Your task to perform on an android device: open device folders in google photos Image 0: 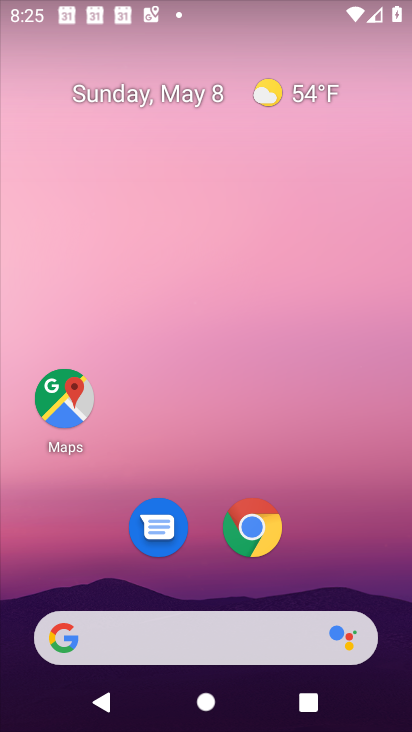
Step 0: drag from (329, 588) to (311, 28)
Your task to perform on an android device: open device folders in google photos Image 1: 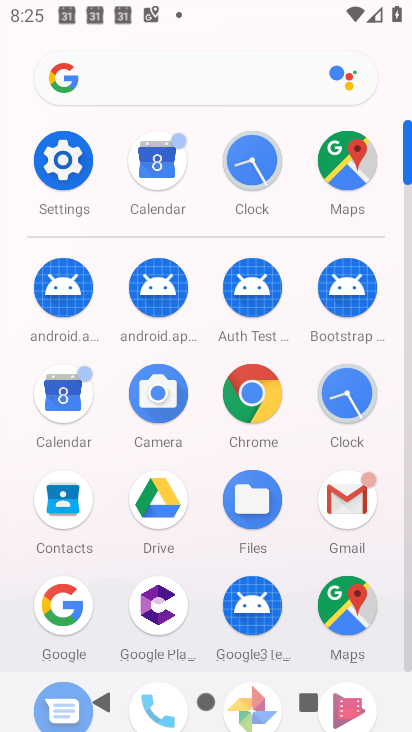
Step 1: drag from (295, 647) to (246, 405)
Your task to perform on an android device: open device folders in google photos Image 2: 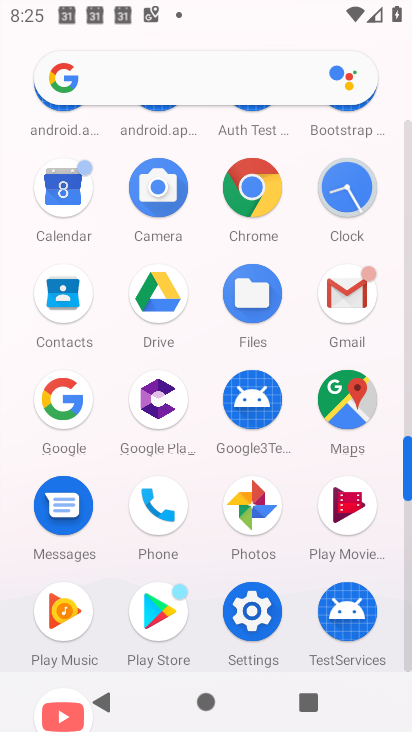
Step 2: click (256, 512)
Your task to perform on an android device: open device folders in google photos Image 3: 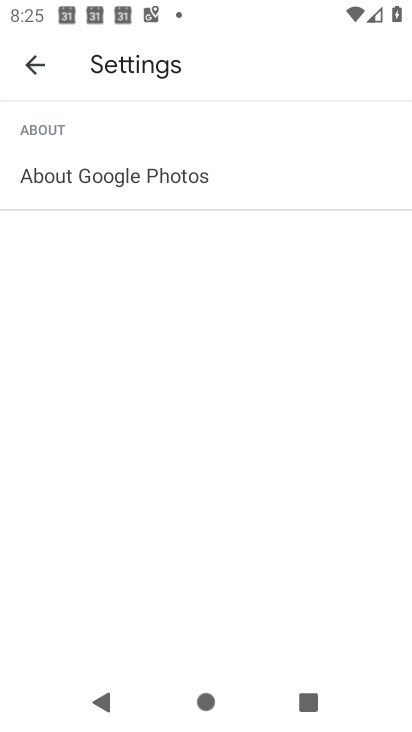
Step 3: click (42, 64)
Your task to perform on an android device: open device folders in google photos Image 4: 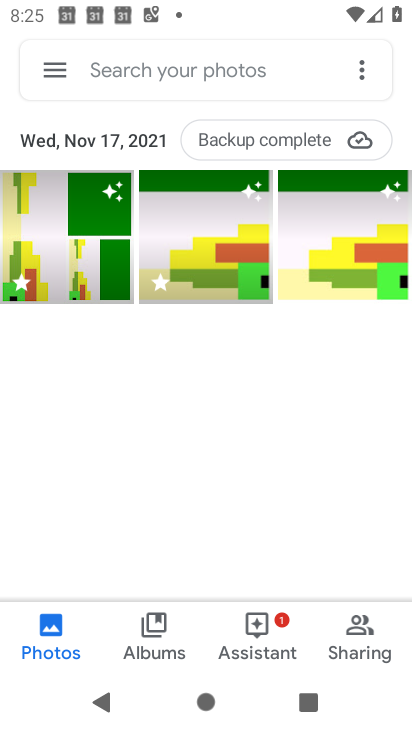
Step 4: click (61, 70)
Your task to perform on an android device: open device folders in google photos Image 5: 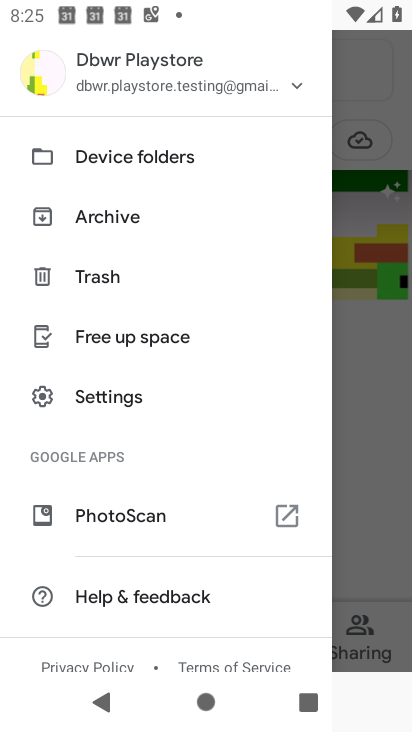
Step 5: click (120, 154)
Your task to perform on an android device: open device folders in google photos Image 6: 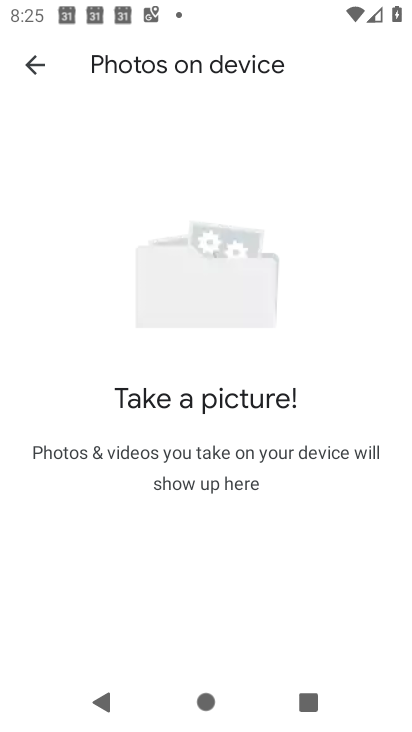
Step 6: task complete